Your task to perform on an android device: turn on translation in the chrome app Image 0: 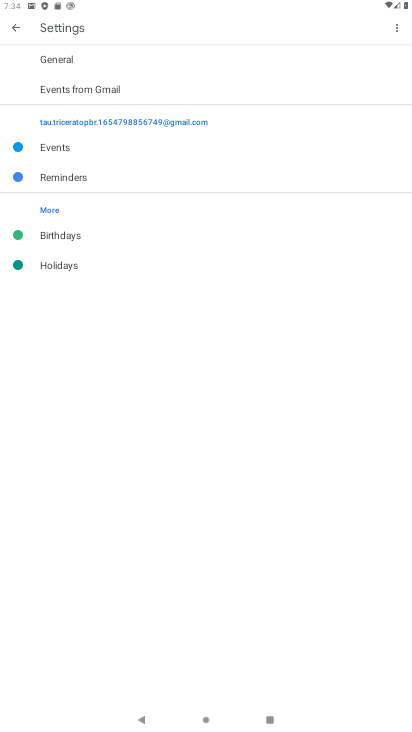
Step 0: press home button
Your task to perform on an android device: turn on translation in the chrome app Image 1: 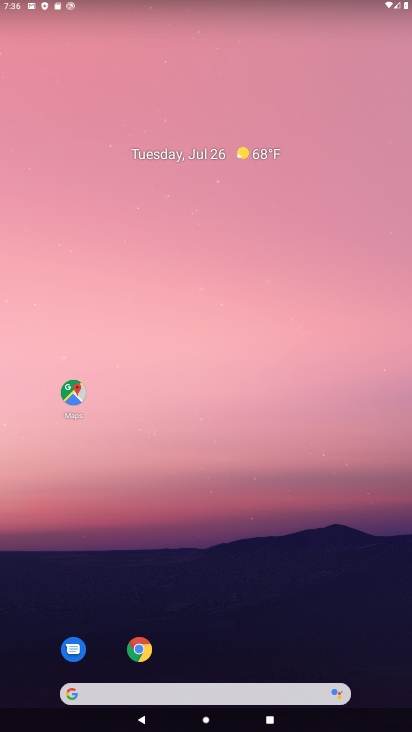
Step 1: click (136, 641)
Your task to perform on an android device: turn on translation in the chrome app Image 2: 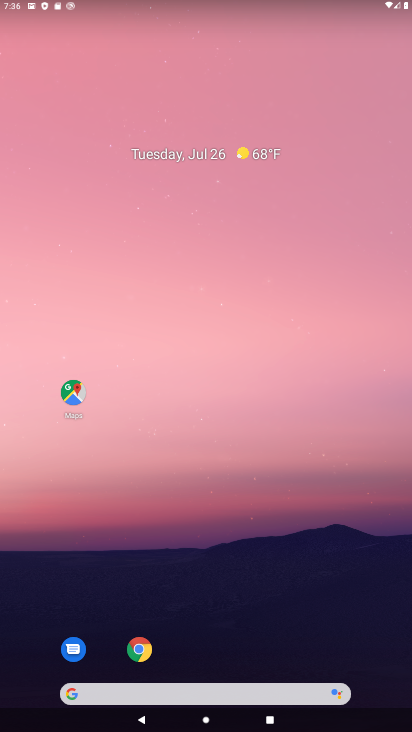
Step 2: click (136, 641)
Your task to perform on an android device: turn on translation in the chrome app Image 3: 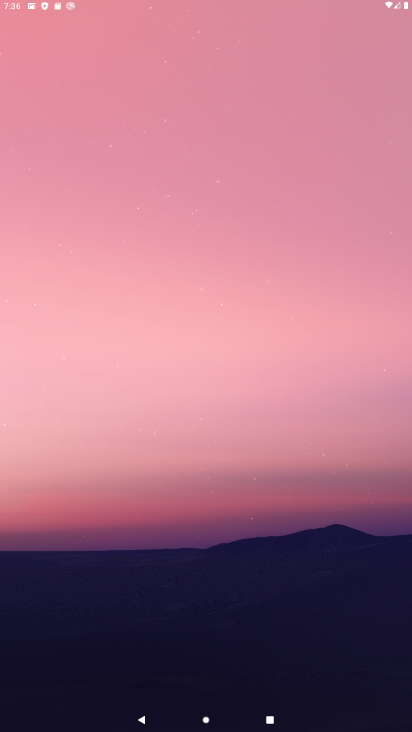
Step 3: click (136, 641)
Your task to perform on an android device: turn on translation in the chrome app Image 4: 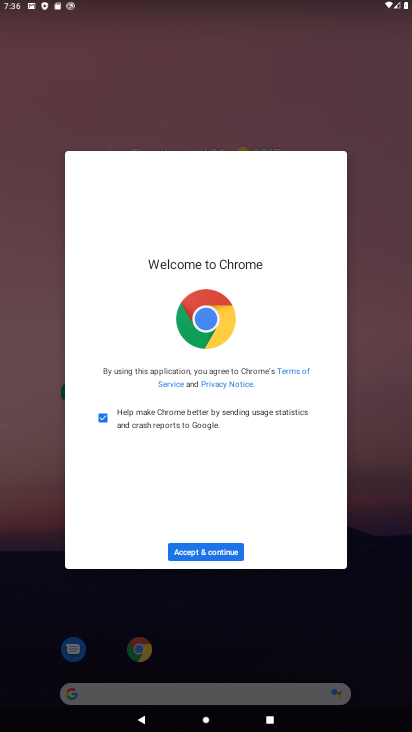
Step 4: click (210, 563)
Your task to perform on an android device: turn on translation in the chrome app Image 5: 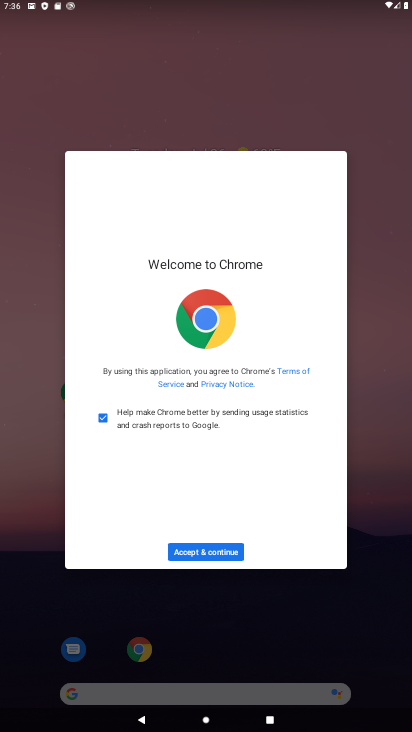
Step 5: click (210, 560)
Your task to perform on an android device: turn on translation in the chrome app Image 6: 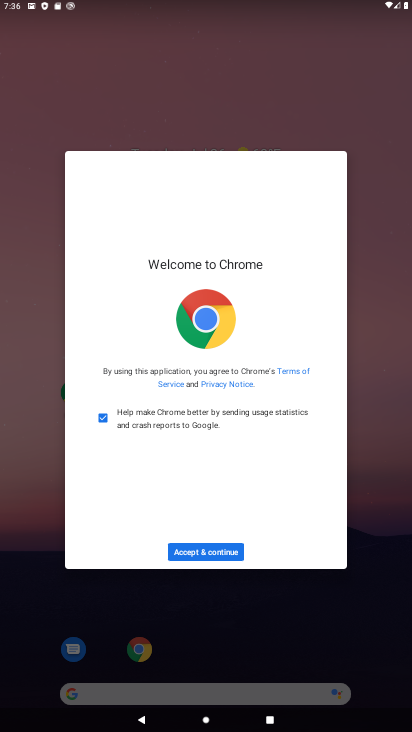
Step 6: click (210, 560)
Your task to perform on an android device: turn on translation in the chrome app Image 7: 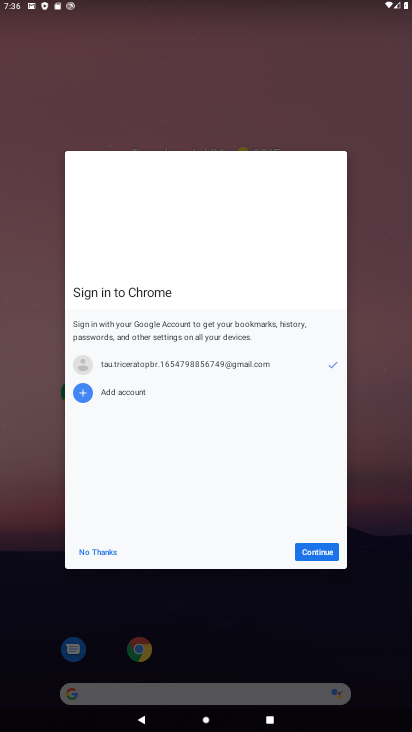
Step 7: click (209, 554)
Your task to perform on an android device: turn on translation in the chrome app Image 8: 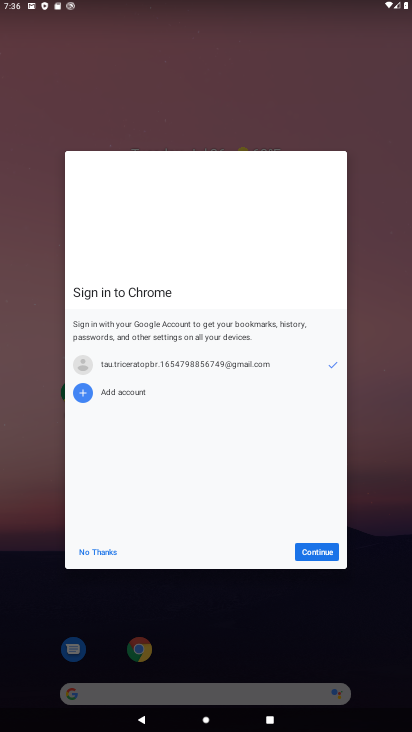
Step 8: click (326, 553)
Your task to perform on an android device: turn on translation in the chrome app Image 9: 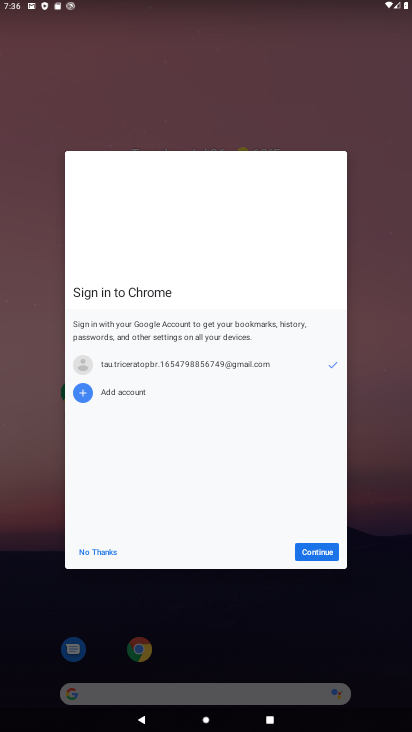
Step 9: click (326, 553)
Your task to perform on an android device: turn on translation in the chrome app Image 10: 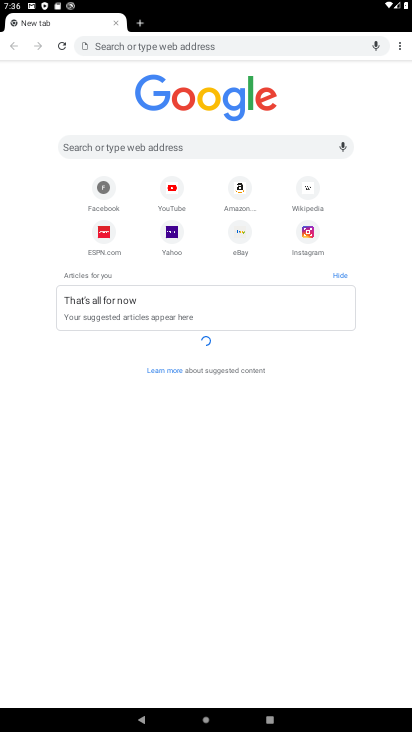
Step 10: click (404, 42)
Your task to perform on an android device: turn on translation in the chrome app Image 11: 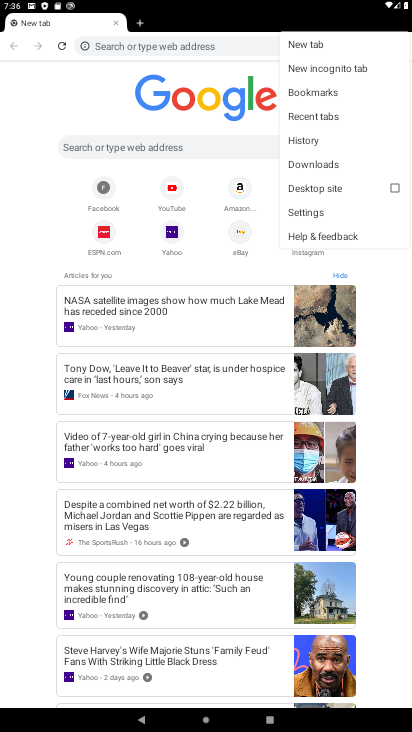
Step 11: click (321, 210)
Your task to perform on an android device: turn on translation in the chrome app Image 12: 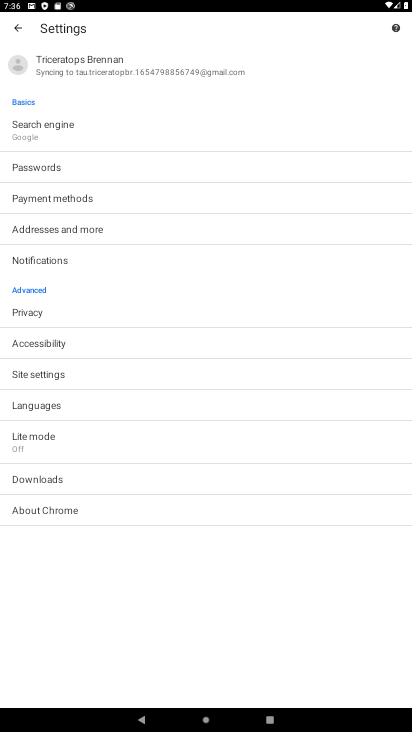
Step 12: click (79, 407)
Your task to perform on an android device: turn on translation in the chrome app Image 13: 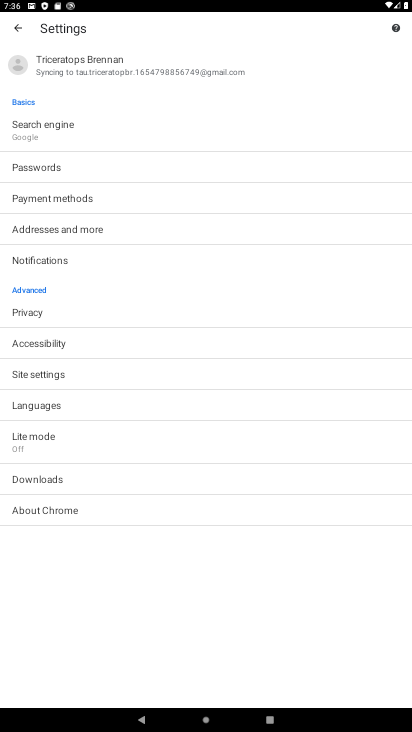
Step 13: click (79, 407)
Your task to perform on an android device: turn on translation in the chrome app Image 14: 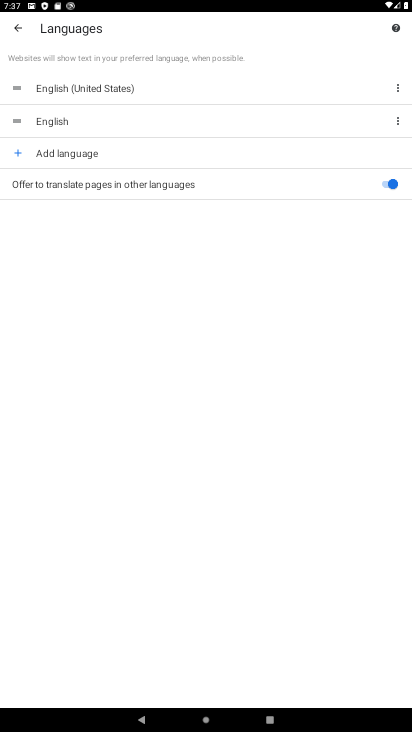
Step 14: task complete